Your task to perform on an android device: Open privacy settings Image 0: 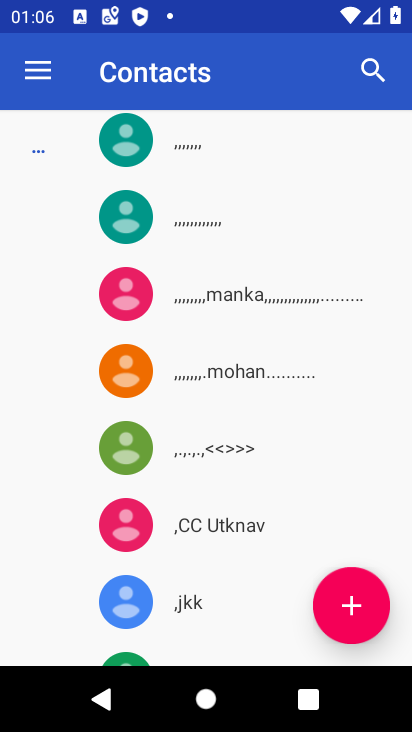
Step 0: press home button
Your task to perform on an android device: Open privacy settings Image 1: 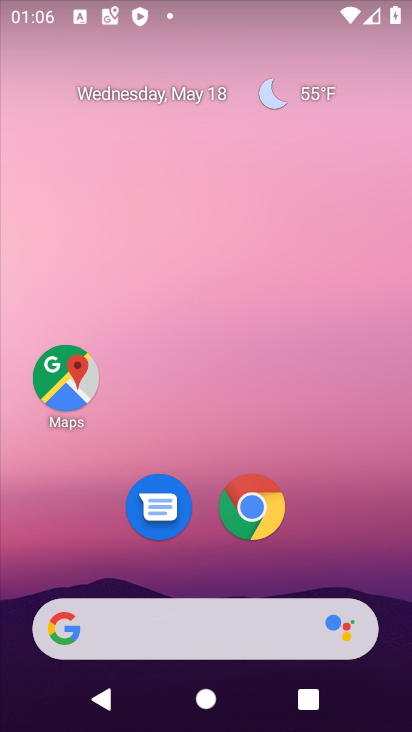
Step 1: drag from (392, 602) to (341, 142)
Your task to perform on an android device: Open privacy settings Image 2: 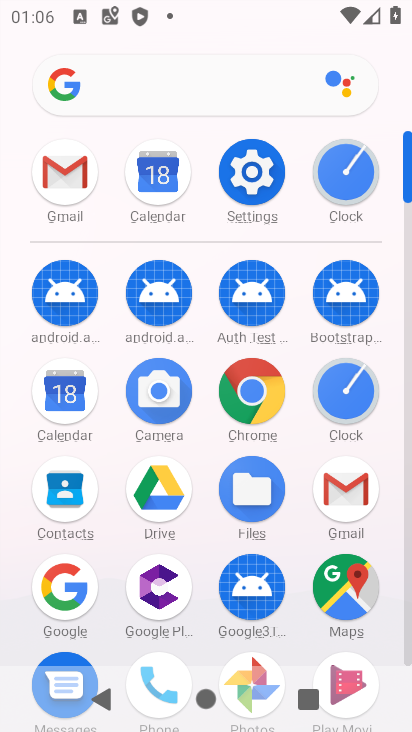
Step 2: click (404, 648)
Your task to perform on an android device: Open privacy settings Image 3: 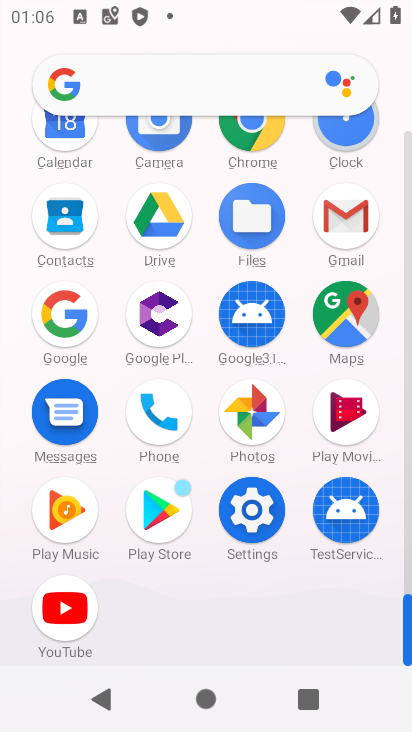
Step 3: click (253, 506)
Your task to perform on an android device: Open privacy settings Image 4: 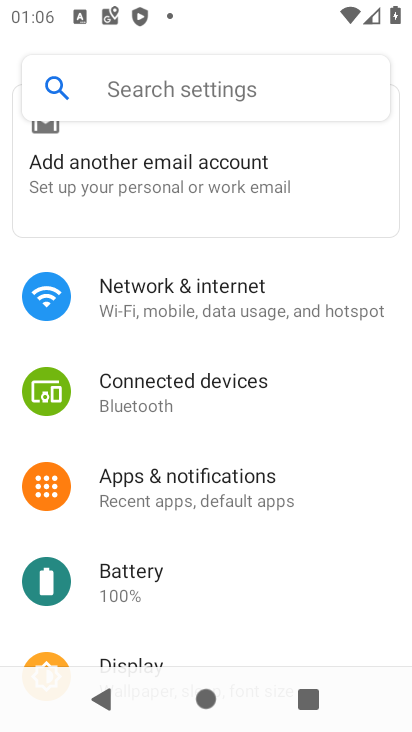
Step 4: drag from (252, 571) to (227, 170)
Your task to perform on an android device: Open privacy settings Image 5: 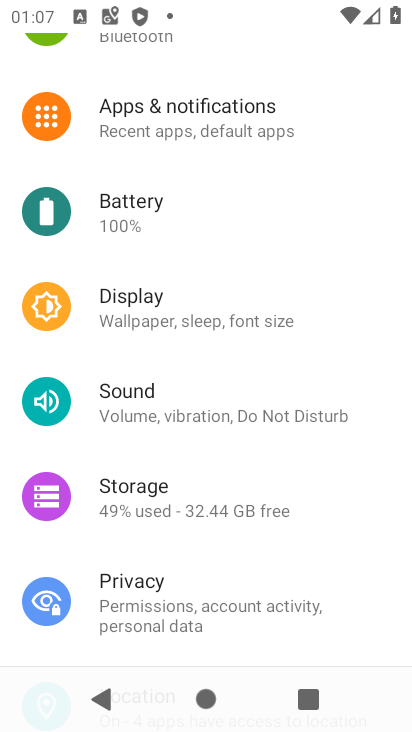
Step 5: click (89, 602)
Your task to perform on an android device: Open privacy settings Image 6: 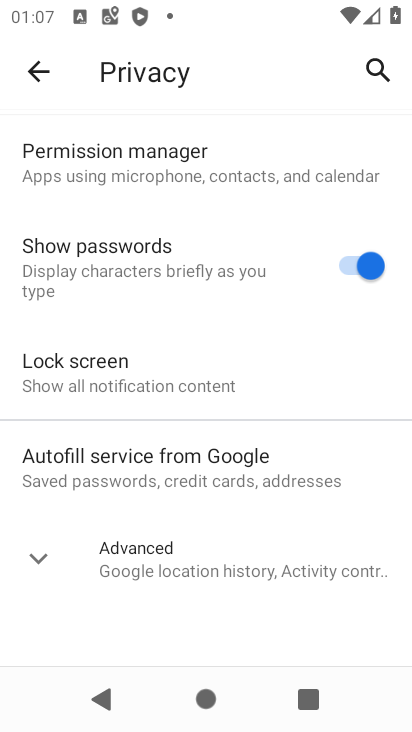
Step 6: click (55, 558)
Your task to perform on an android device: Open privacy settings Image 7: 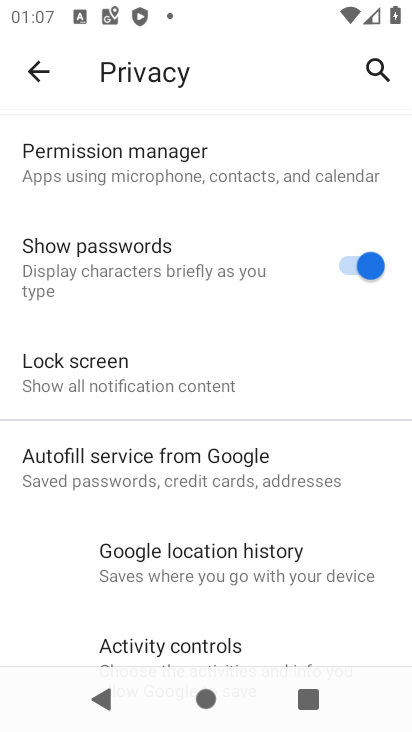
Step 7: task complete